Your task to perform on an android device: Open calendar and show me the first week of next month Image 0: 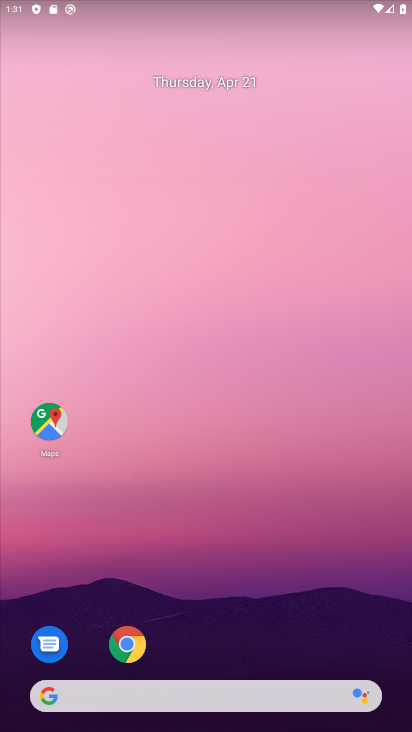
Step 0: drag from (300, 526) to (260, 104)
Your task to perform on an android device: Open calendar and show me the first week of next month Image 1: 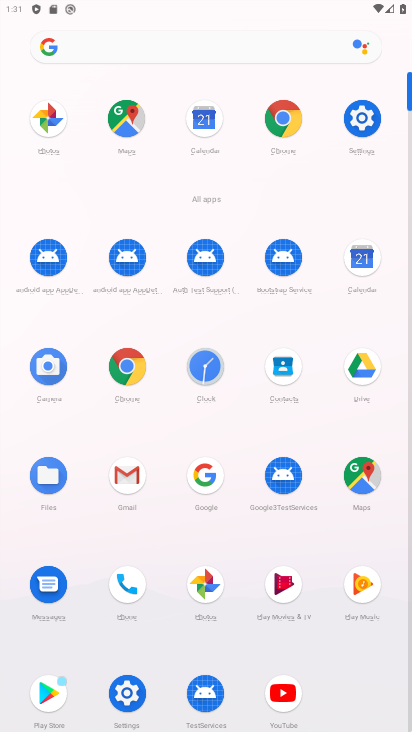
Step 1: click (372, 258)
Your task to perform on an android device: Open calendar and show me the first week of next month Image 2: 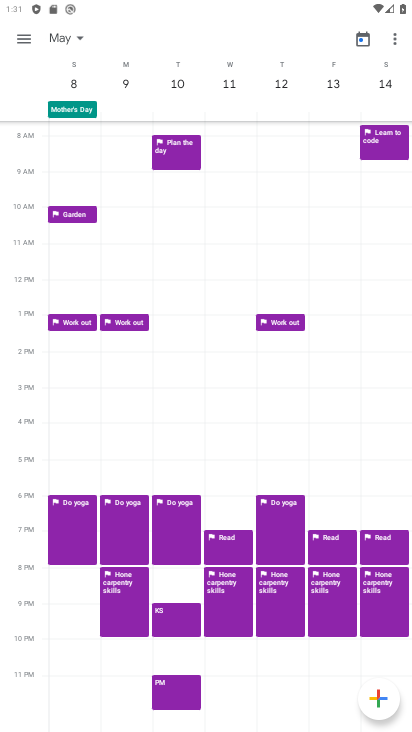
Step 2: click (85, 34)
Your task to perform on an android device: Open calendar and show me the first week of next month Image 3: 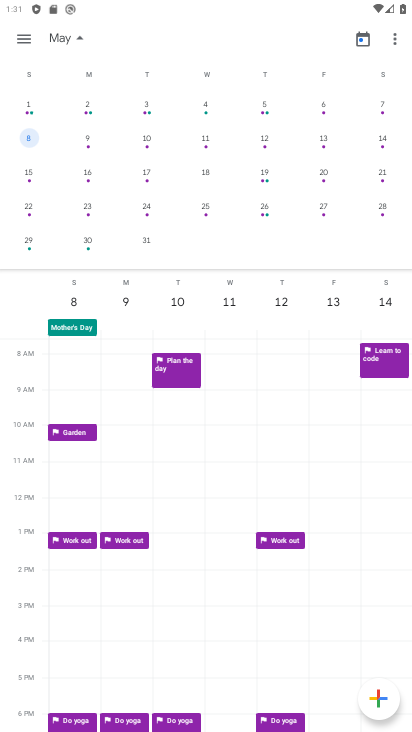
Step 3: click (137, 108)
Your task to perform on an android device: Open calendar and show me the first week of next month Image 4: 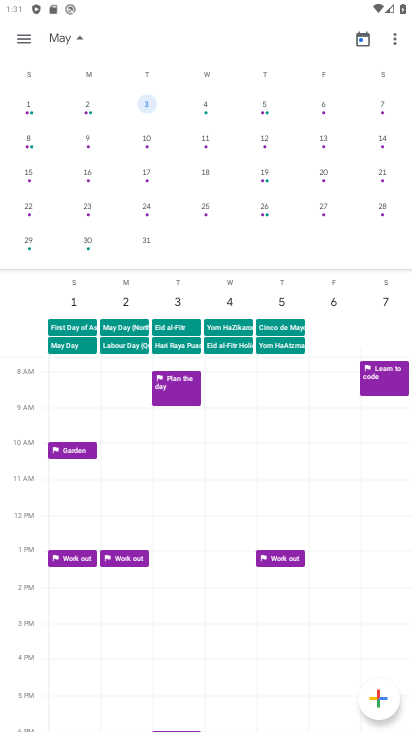
Step 4: click (74, 42)
Your task to perform on an android device: Open calendar and show me the first week of next month Image 5: 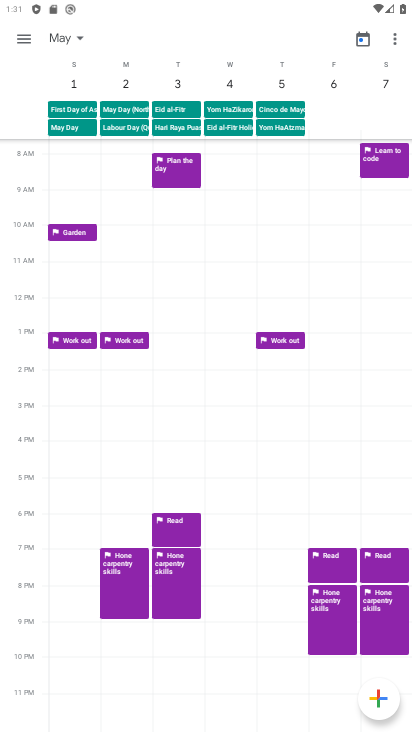
Step 5: task complete